Your task to perform on an android device: Open the web browser Image 0: 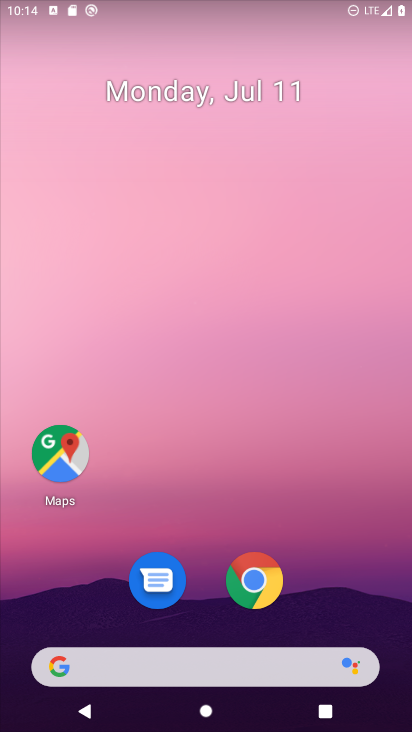
Step 0: click (239, 667)
Your task to perform on an android device: Open the web browser Image 1: 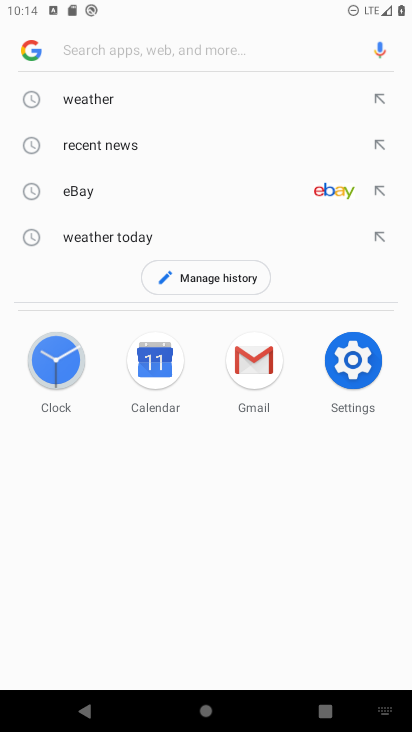
Step 1: task complete